Your task to perform on an android device: refresh tabs in the chrome app Image 0: 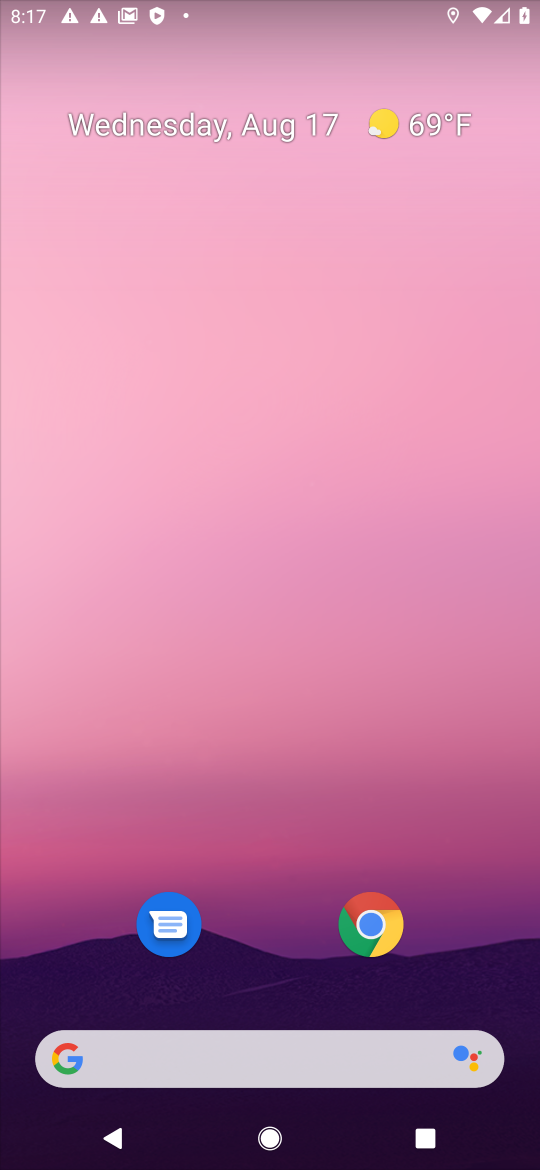
Step 0: drag from (278, 924) to (457, 15)
Your task to perform on an android device: refresh tabs in the chrome app Image 1: 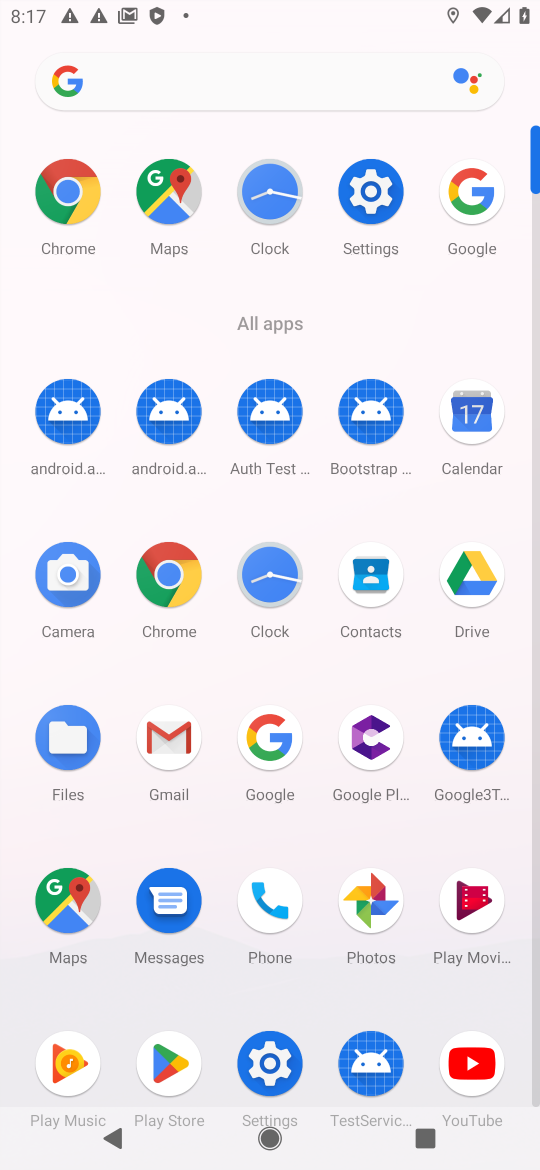
Step 1: click (167, 565)
Your task to perform on an android device: refresh tabs in the chrome app Image 2: 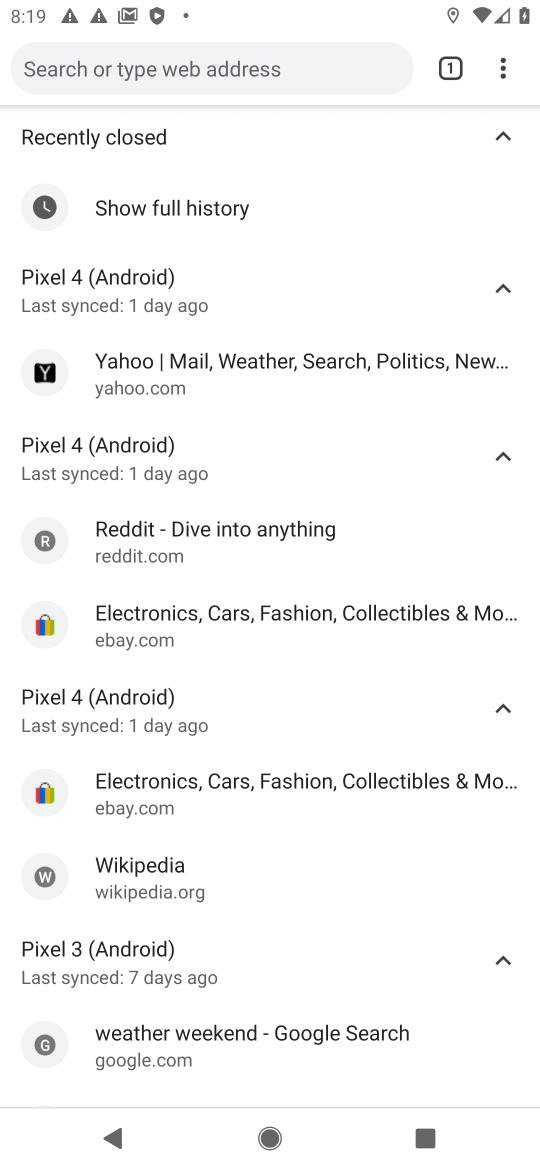
Step 2: click (505, 64)
Your task to perform on an android device: refresh tabs in the chrome app Image 3: 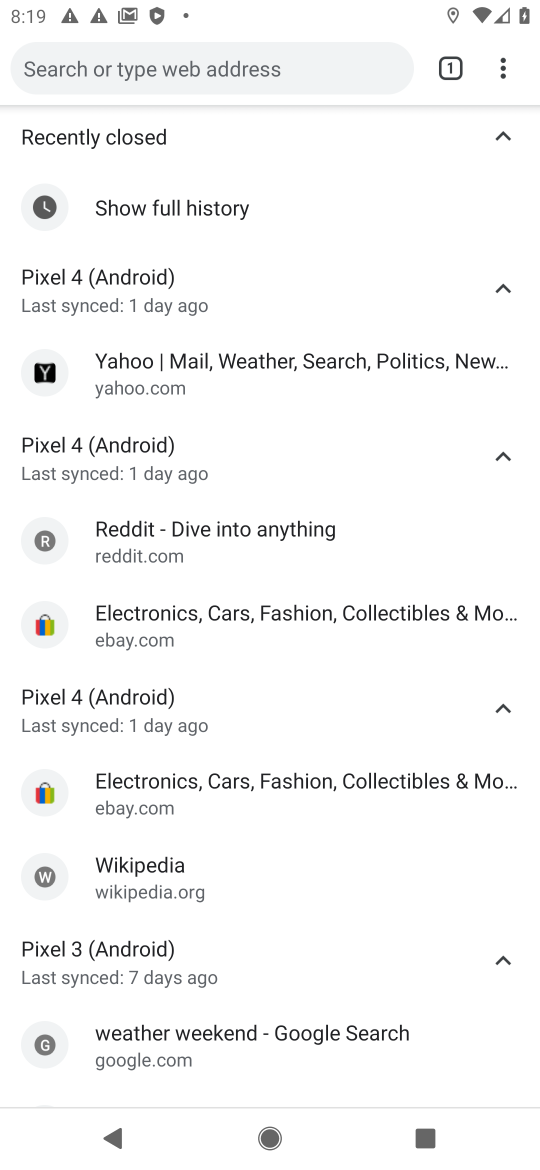
Step 3: task complete